Your task to perform on an android device: open the mobile data screen to see how much data has been used Image 0: 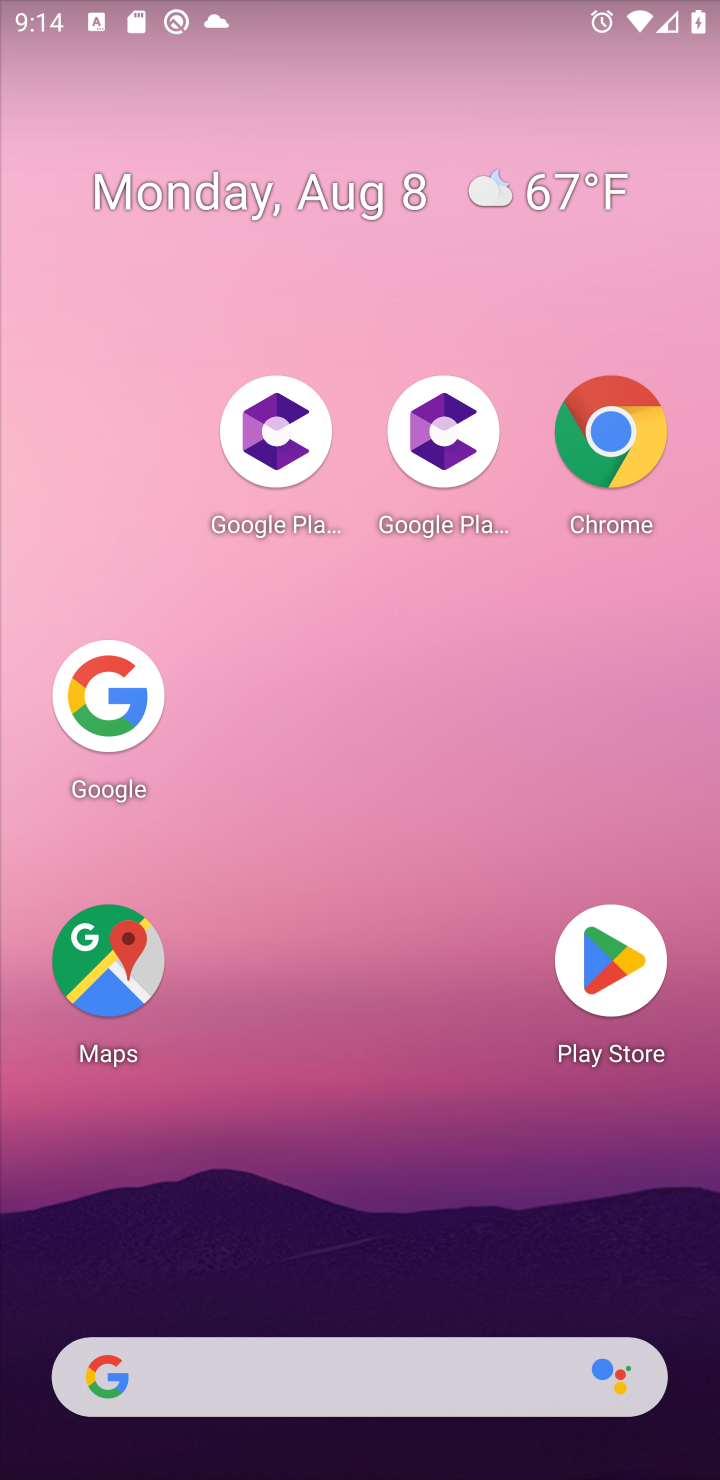
Step 0: press home button
Your task to perform on an android device: open the mobile data screen to see how much data has been used Image 1: 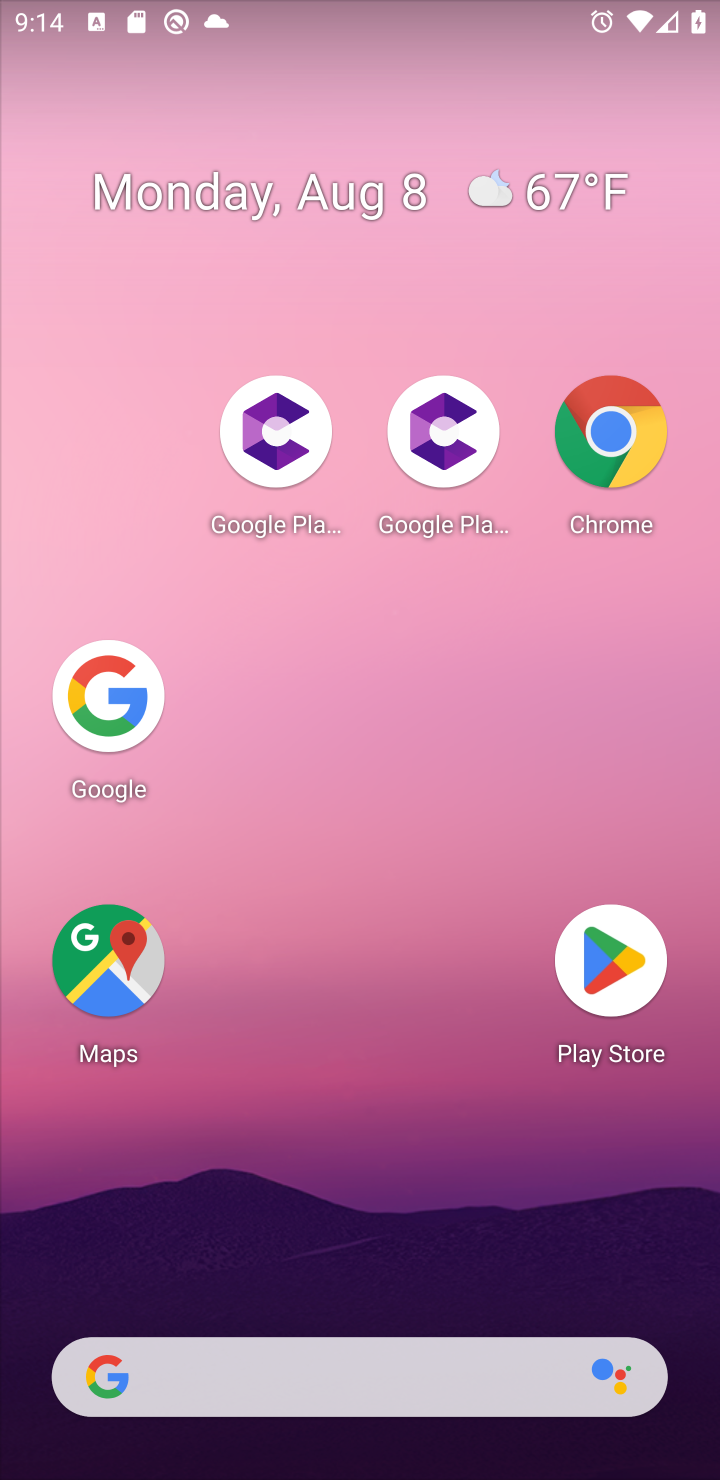
Step 1: drag from (425, 1200) to (459, 71)
Your task to perform on an android device: open the mobile data screen to see how much data has been used Image 2: 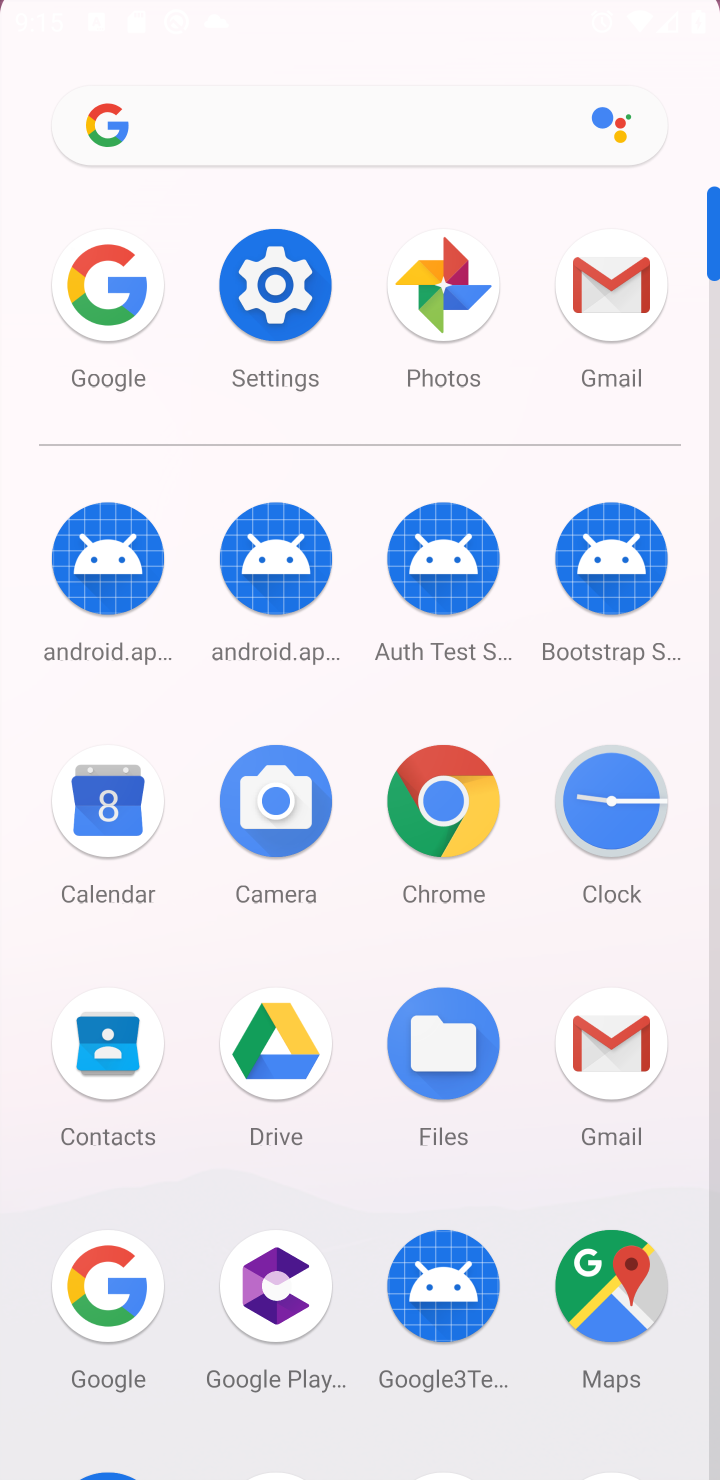
Step 2: click (282, 419)
Your task to perform on an android device: open the mobile data screen to see how much data has been used Image 3: 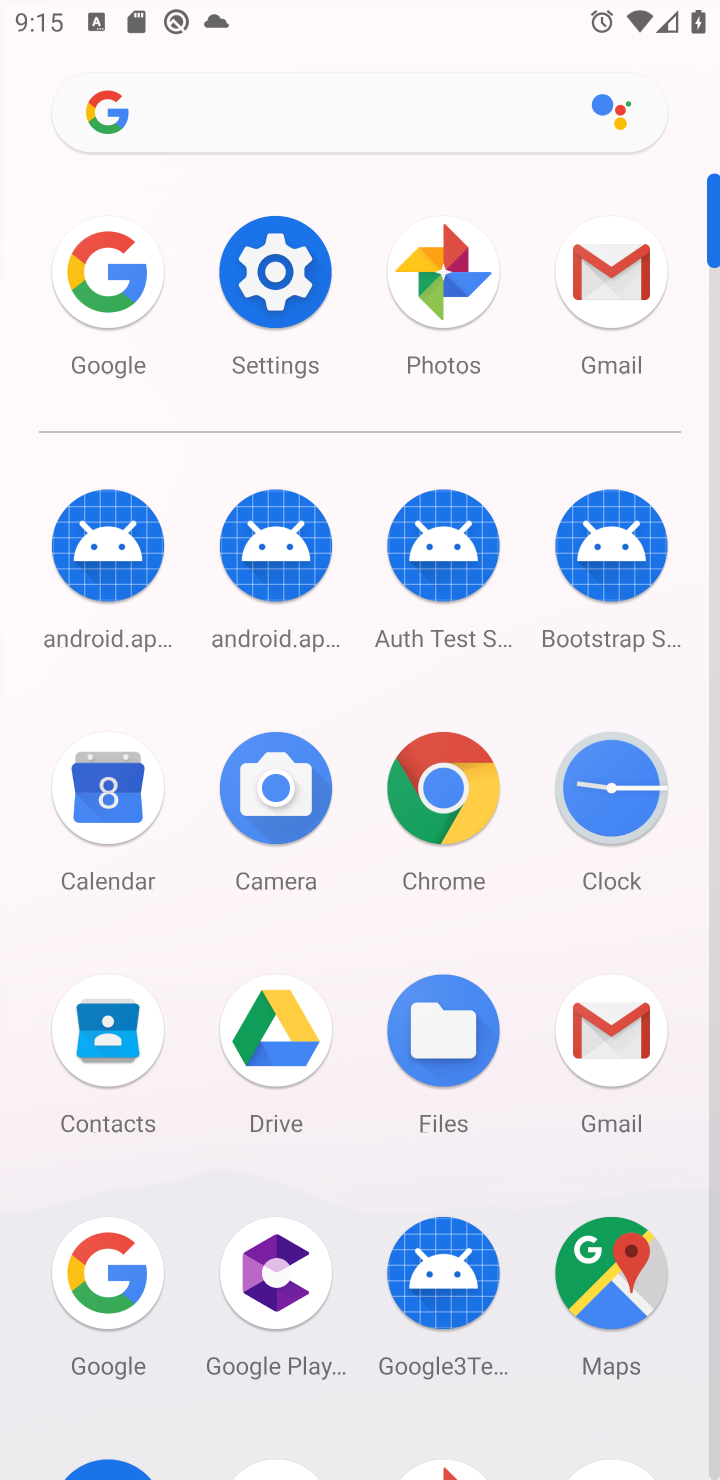
Step 3: click (285, 286)
Your task to perform on an android device: open the mobile data screen to see how much data has been used Image 4: 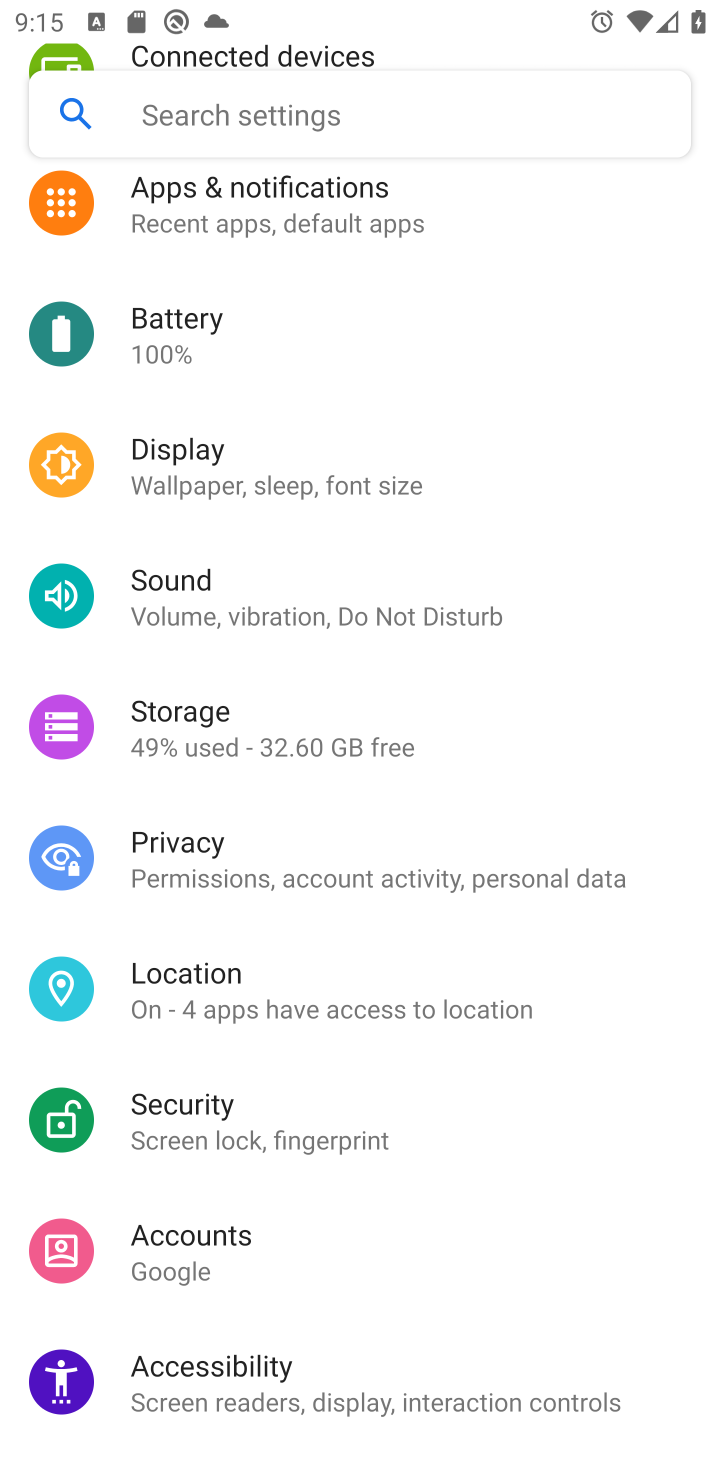
Step 4: drag from (201, 204) to (145, 982)
Your task to perform on an android device: open the mobile data screen to see how much data has been used Image 5: 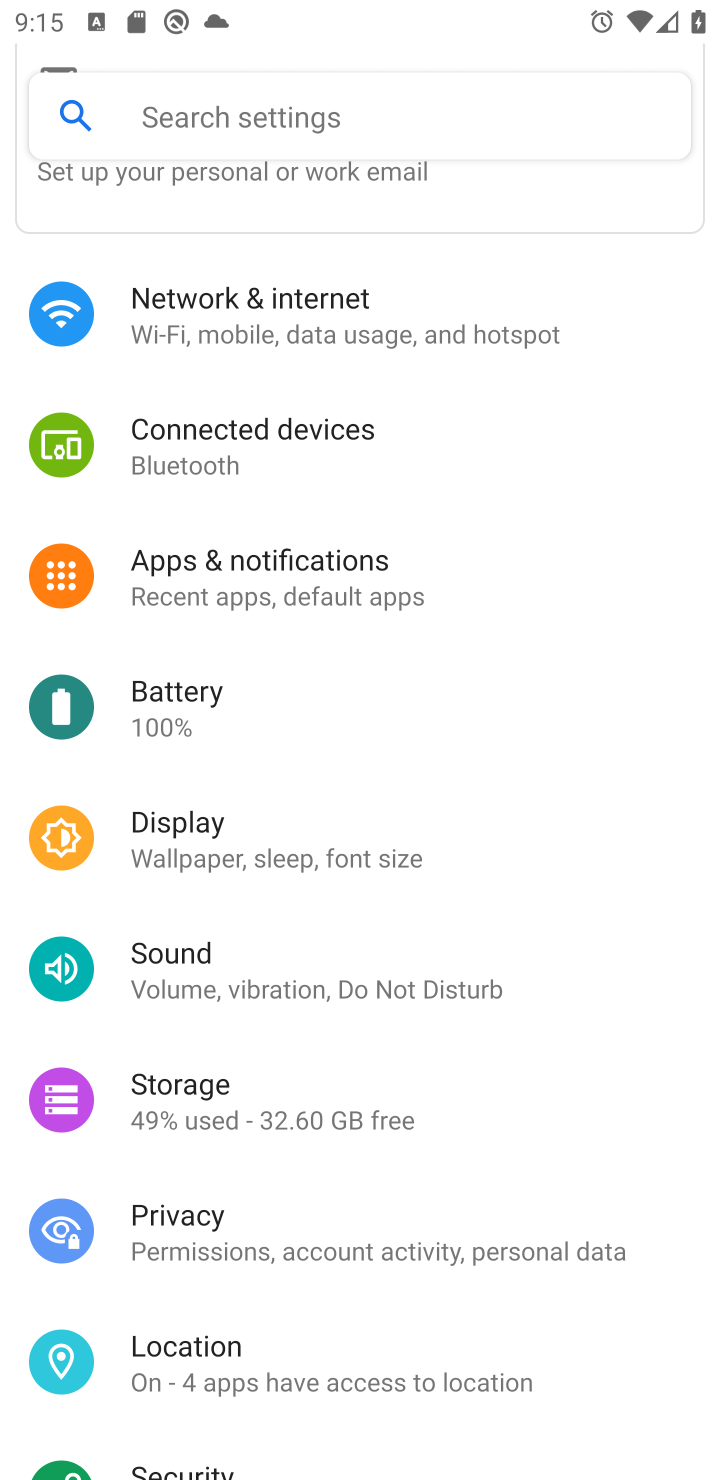
Step 5: drag from (195, 197) to (265, 927)
Your task to perform on an android device: open the mobile data screen to see how much data has been used Image 6: 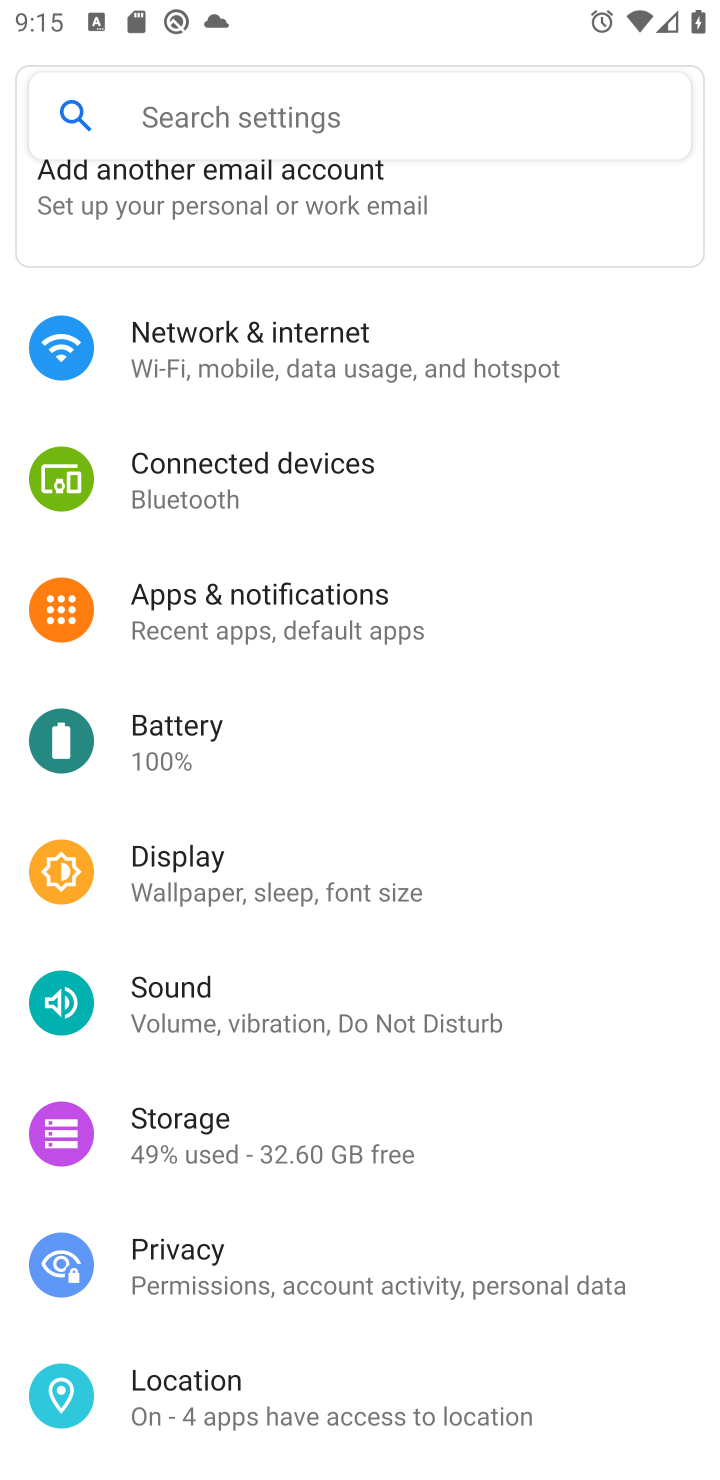
Step 6: click (307, 331)
Your task to perform on an android device: open the mobile data screen to see how much data has been used Image 7: 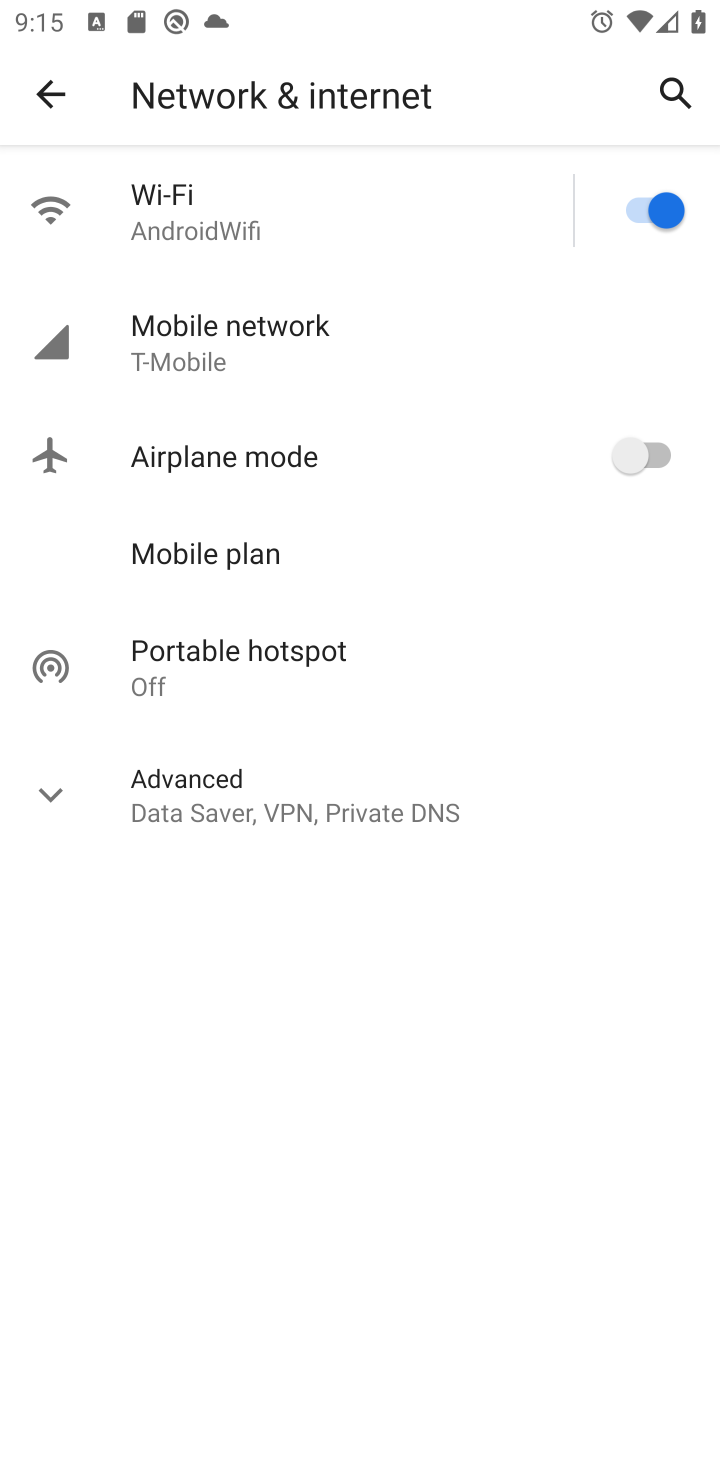
Step 7: click (180, 337)
Your task to perform on an android device: open the mobile data screen to see how much data has been used Image 8: 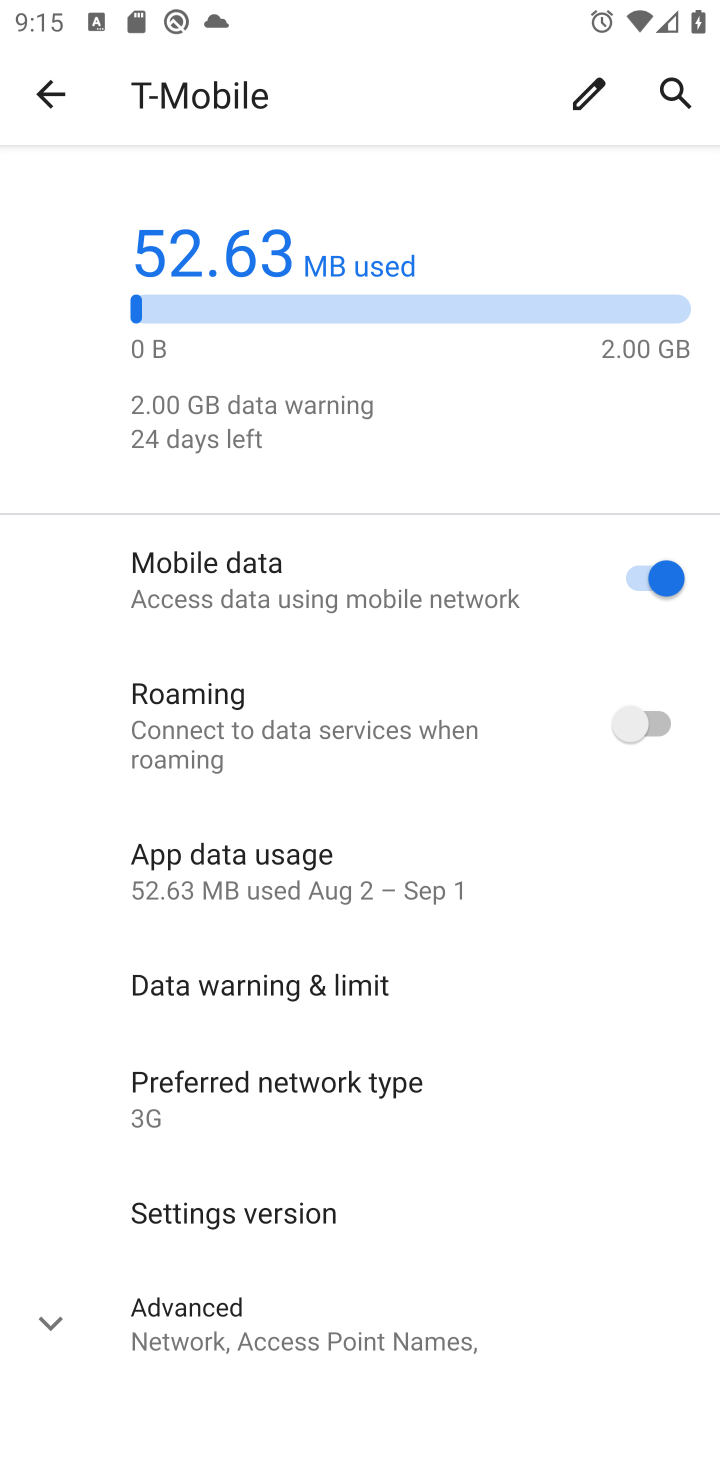
Step 8: task complete